Your task to perform on an android device: delete location history Image 0: 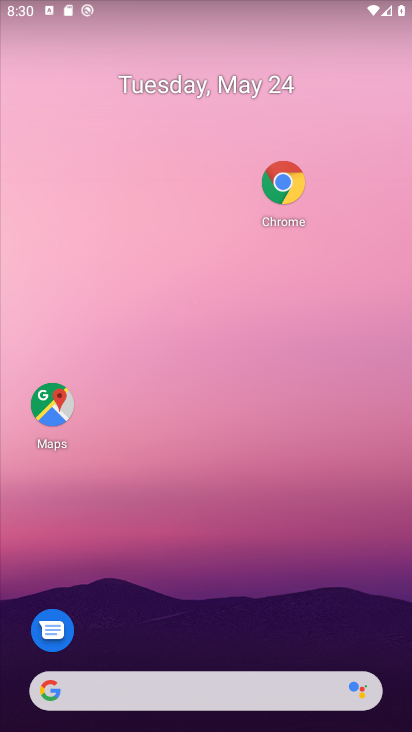
Step 0: press home button
Your task to perform on an android device: delete location history Image 1: 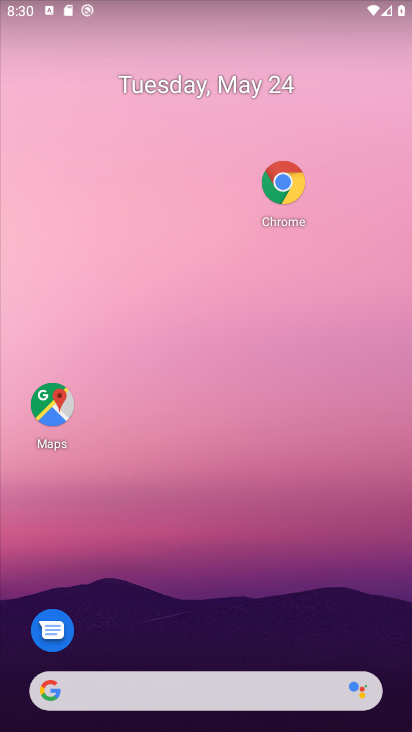
Step 1: drag from (171, 648) to (137, 179)
Your task to perform on an android device: delete location history Image 2: 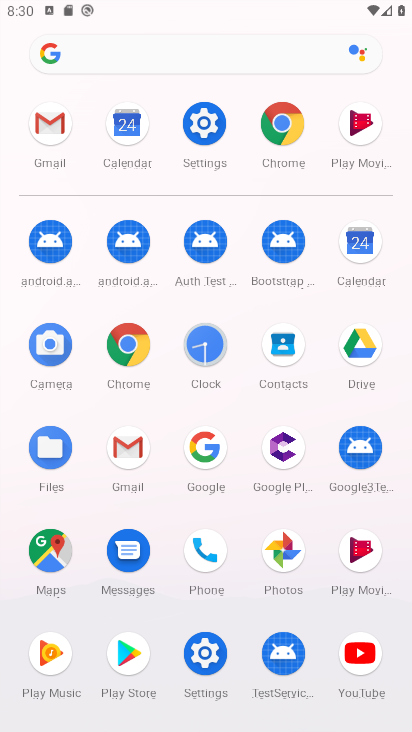
Step 2: click (197, 119)
Your task to perform on an android device: delete location history Image 3: 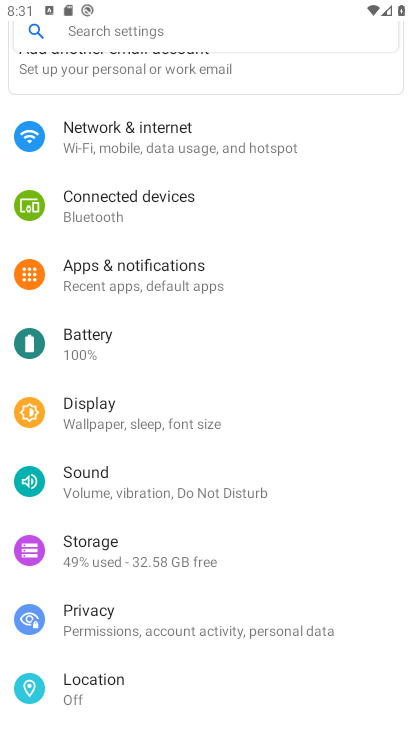
Step 3: click (185, 39)
Your task to perform on an android device: delete location history Image 4: 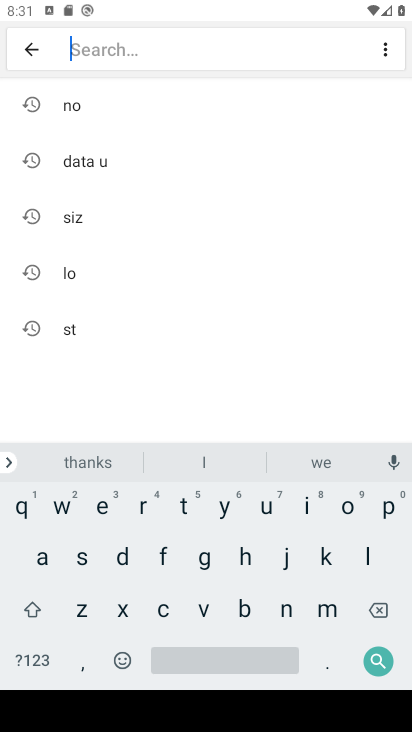
Step 4: click (110, 272)
Your task to perform on an android device: delete location history Image 5: 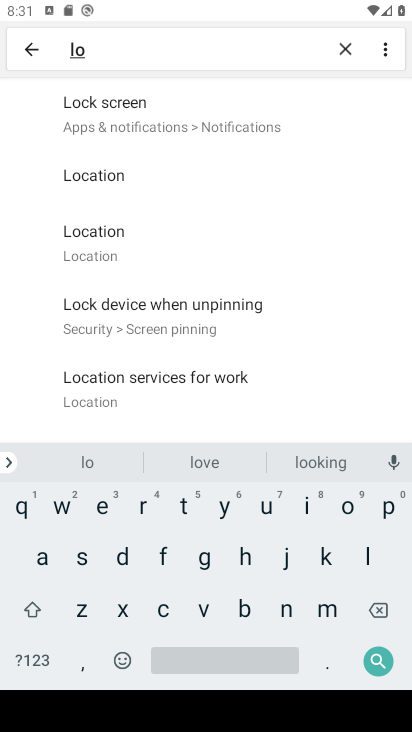
Step 5: click (117, 231)
Your task to perform on an android device: delete location history Image 6: 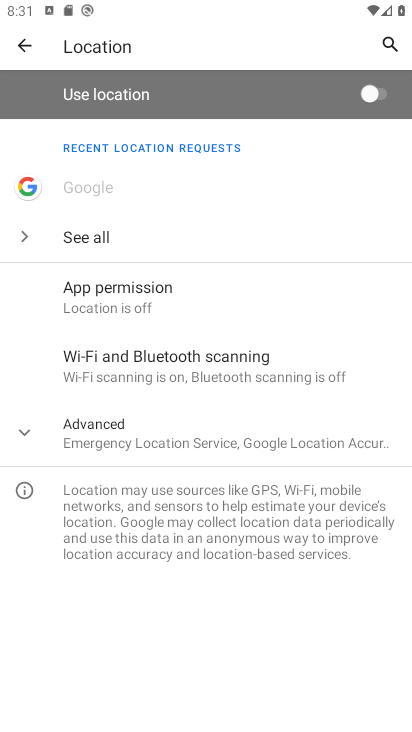
Step 6: click (36, 432)
Your task to perform on an android device: delete location history Image 7: 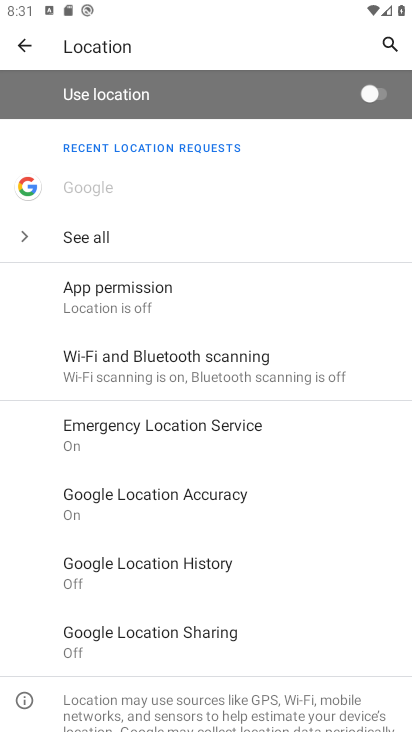
Step 7: click (197, 558)
Your task to perform on an android device: delete location history Image 8: 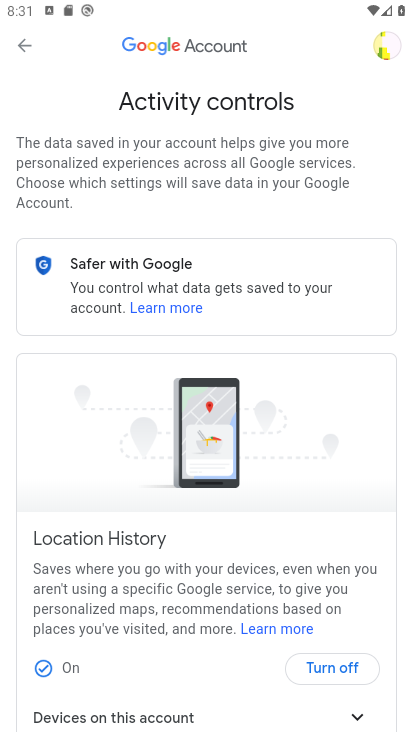
Step 8: drag from (268, 374) to (237, 161)
Your task to perform on an android device: delete location history Image 9: 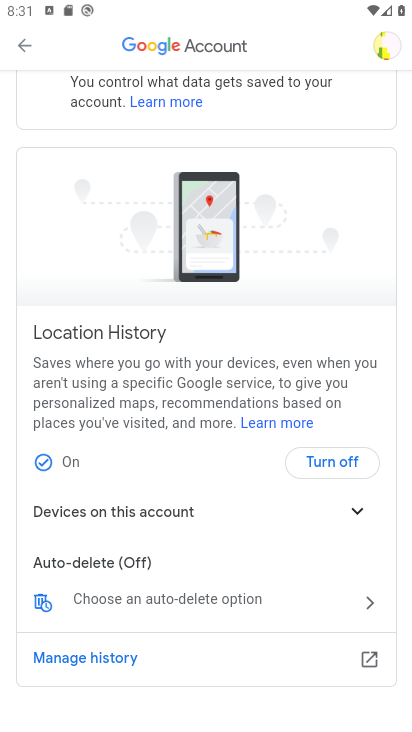
Step 9: click (170, 597)
Your task to perform on an android device: delete location history Image 10: 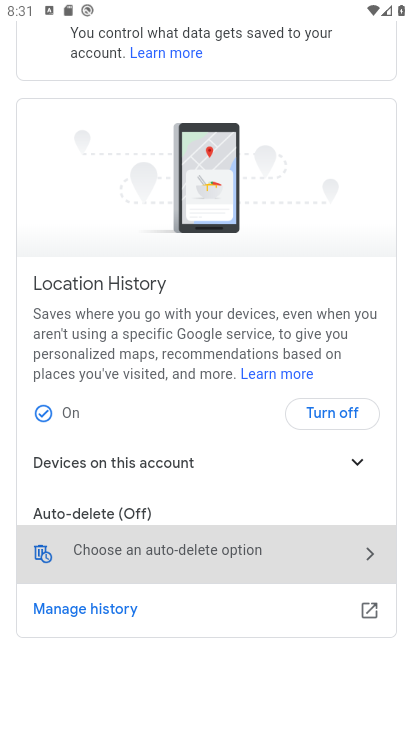
Step 10: task complete